Your task to perform on an android device: Open Google Chrome and open the bookmarks view Image 0: 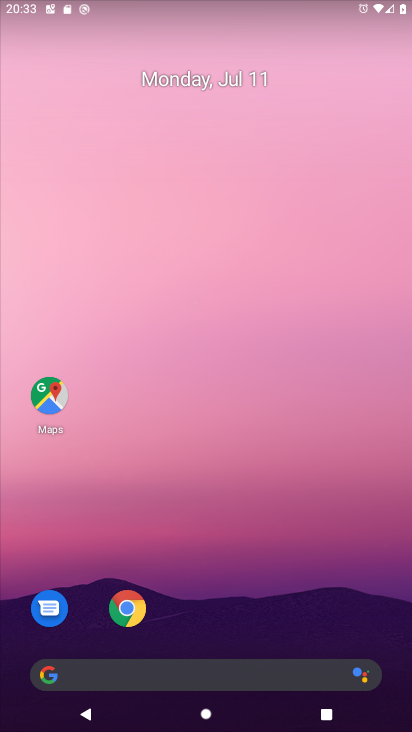
Step 0: click (136, 614)
Your task to perform on an android device: Open Google Chrome and open the bookmarks view Image 1: 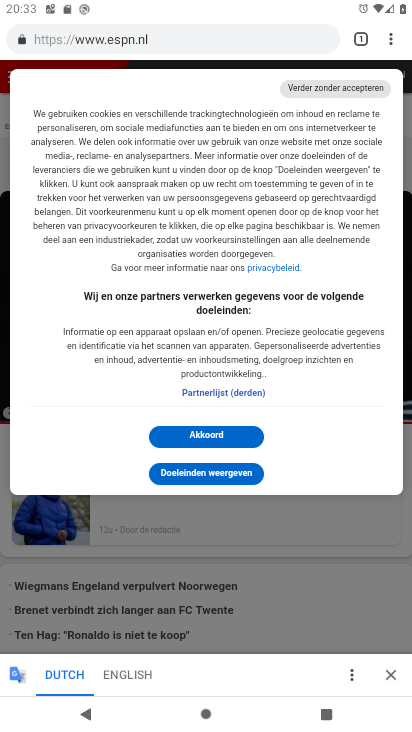
Step 1: click (396, 40)
Your task to perform on an android device: Open Google Chrome and open the bookmarks view Image 2: 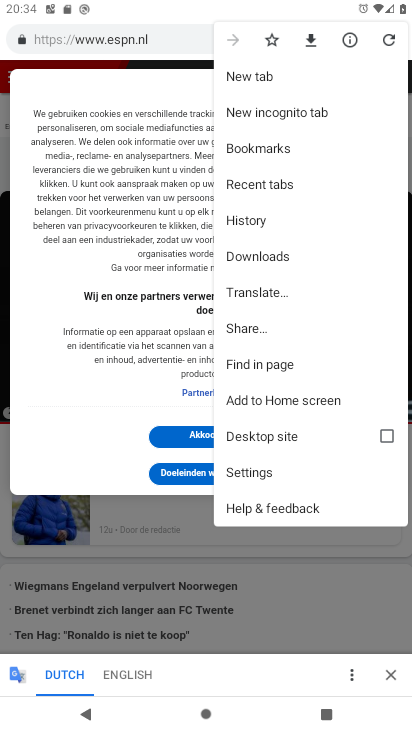
Step 2: click (262, 155)
Your task to perform on an android device: Open Google Chrome and open the bookmarks view Image 3: 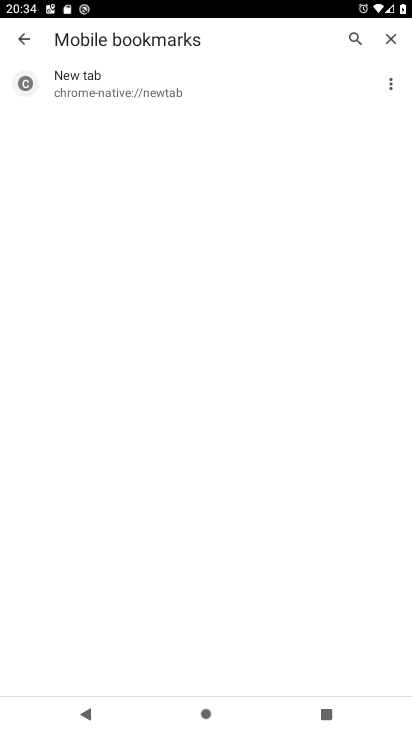
Step 3: task complete